Your task to perform on an android device: add a label to a message in the gmail app Image 0: 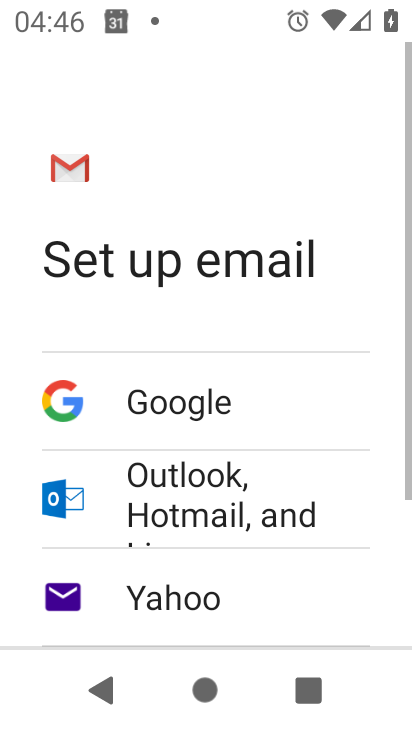
Step 0: press home button
Your task to perform on an android device: add a label to a message in the gmail app Image 1: 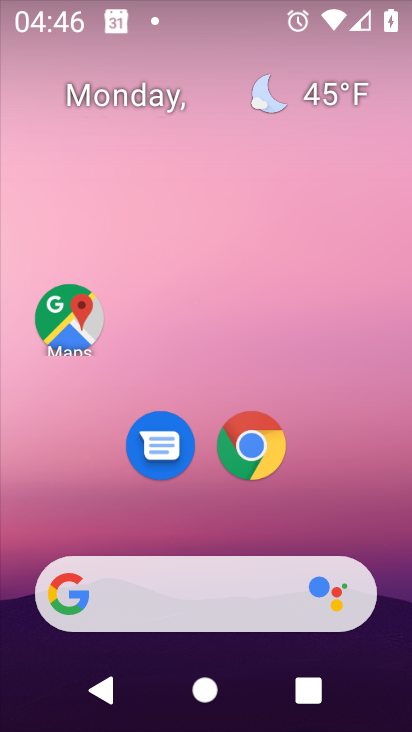
Step 1: drag from (264, 530) to (261, 54)
Your task to perform on an android device: add a label to a message in the gmail app Image 2: 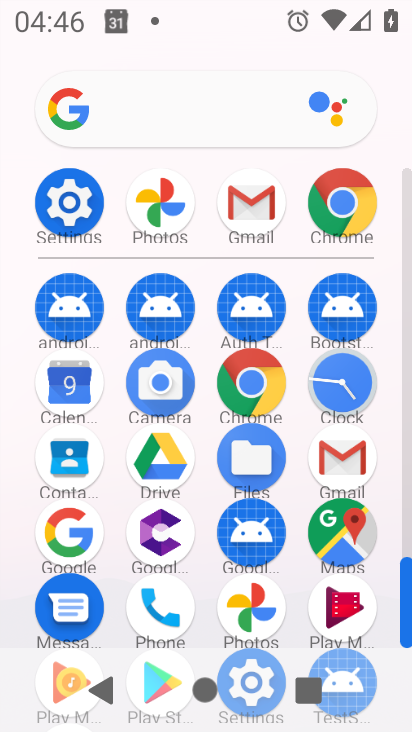
Step 2: click (352, 460)
Your task to perform on an android device: add a label to a message in the gmail app Image 3: 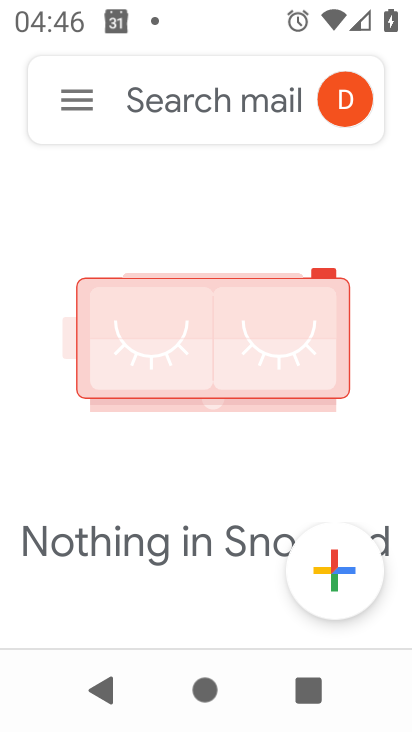
Step 3: click (84, 95)
Your task to perform on an android device: add a label to a message in the gmail app Image 4: 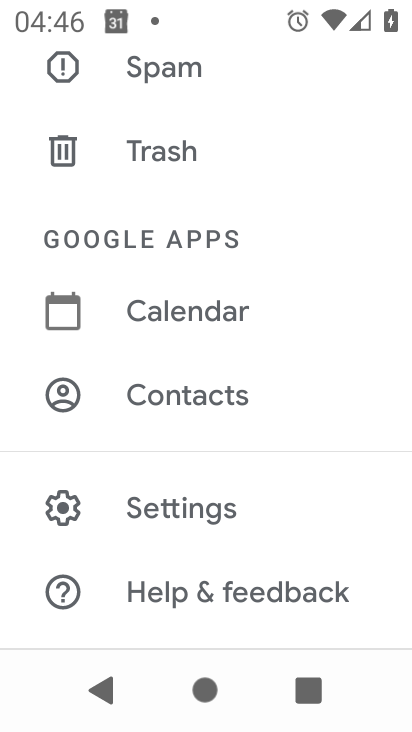
Step 4: drag from (176, 73) to (268, 435)
Your task to perform on an android device: add a label to a message in the gmail app Image 5: 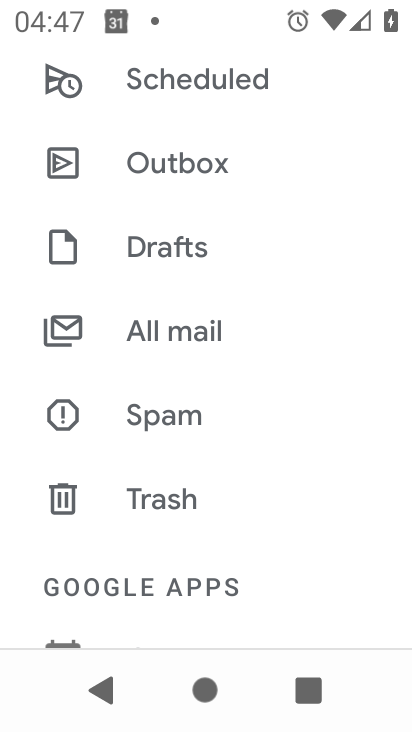
Step 5: click (199, 325)
Your task to perform on an android device: add a label to a message in the gmail app Image 6: 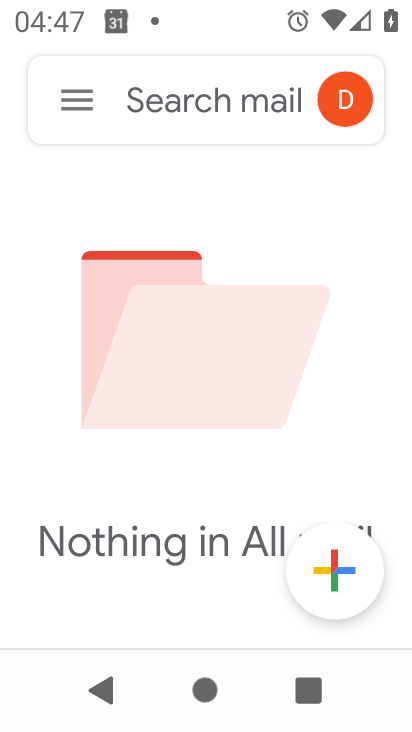
Step 6: task complete